Your task to perform on an android device: Go to battery settings Image 0: 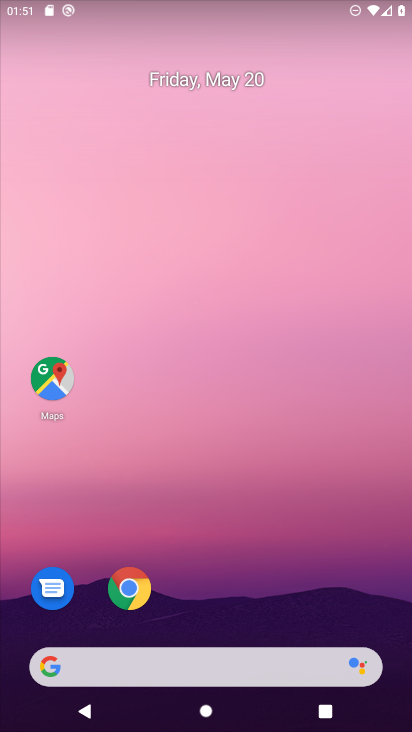
Step 0: drag from (385, 601) to (322, 149)
Your task to perform on an android device: Go to battery settings Image 1: 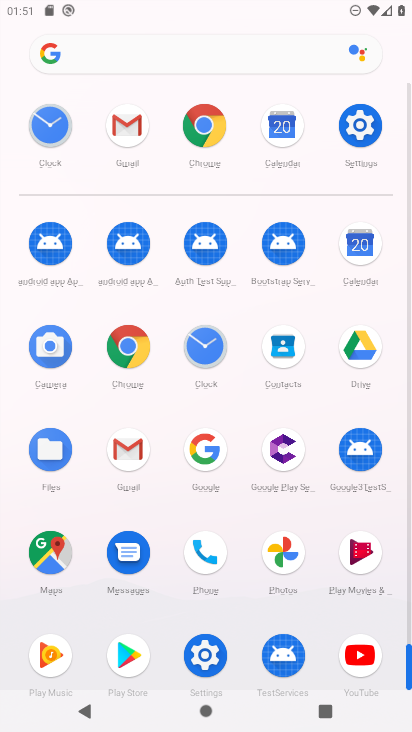
Step 1: click (202, 654)
Your task to perform on an android device: Go to battery settings Image 2: 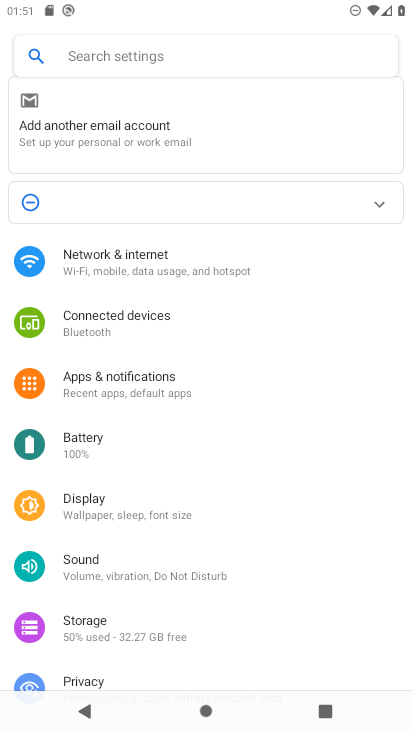
Step 2: click (80, 439)
Your task to perform on an android device: Go to battery settings Image 3: 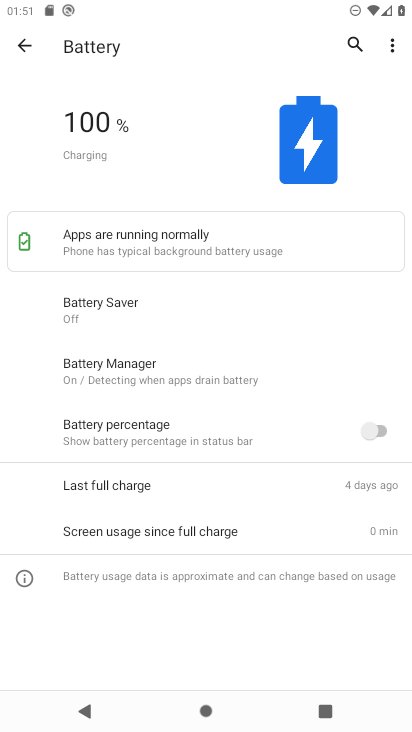
Step 3: task complete